Your task to perform on an android device: change the clock display to analog Image 0: 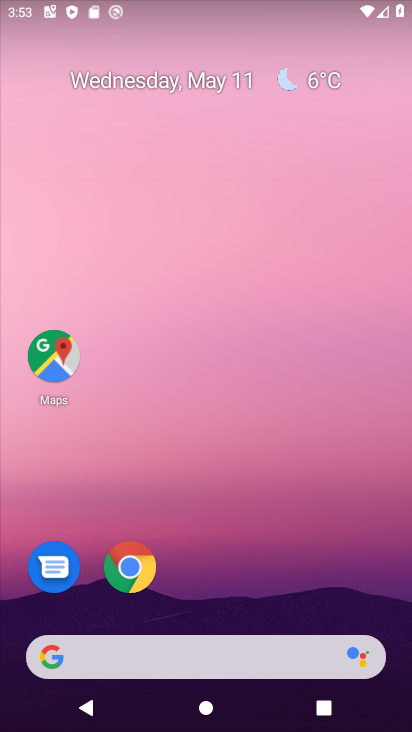
Step 0: drag from (304, 627) to (289, 320)
Your task to perform on an android device: change the clock display to analog Image 1: 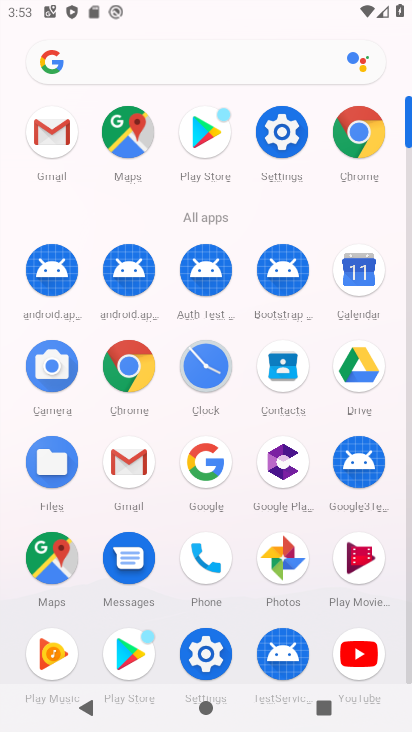
Step 1: click (214, 360)
Your task to perform on an android device: change the clock display to analog Image 2: 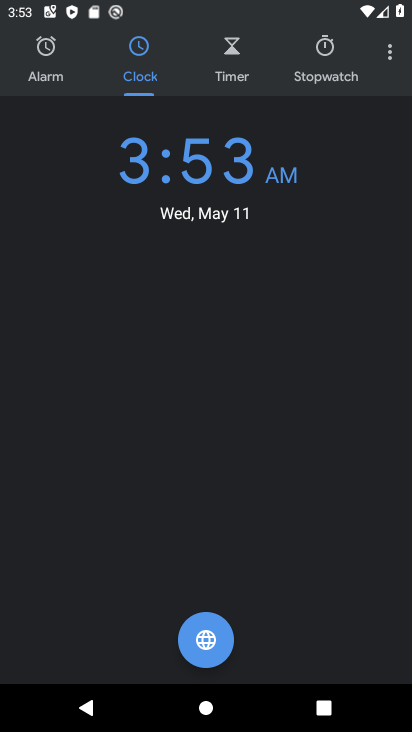
Step 2: click (384, 53)
Your task to perform on an android device: change the clock display to analog Image 3: 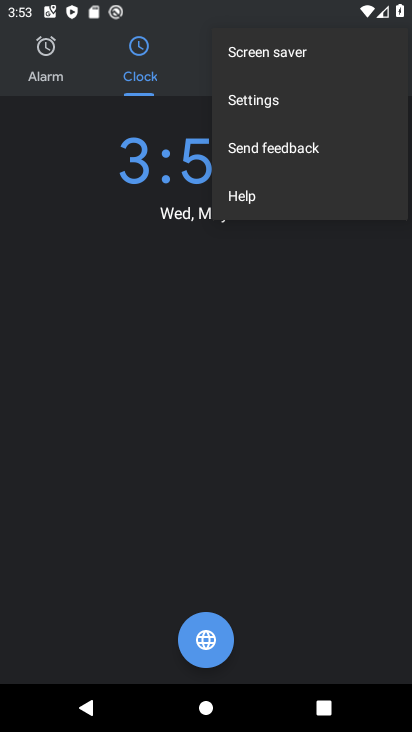
Step 3: click (270, 97)
Your task to perform on an android device: change the clock display to analog Image 4: 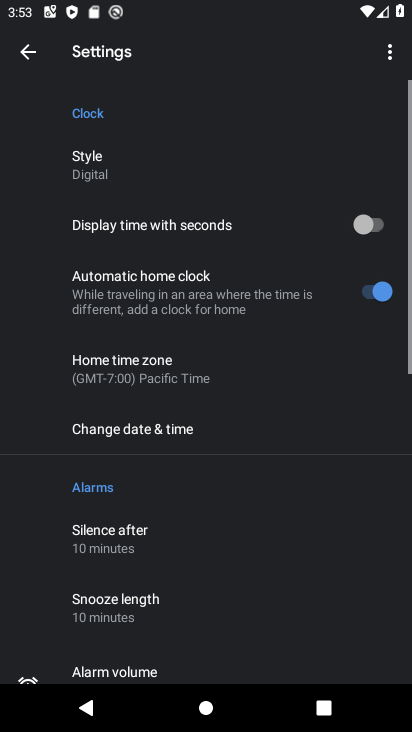
Step 4: click (98, 162)
Your task to perform on an android device: change the clock display to analog Image 5: 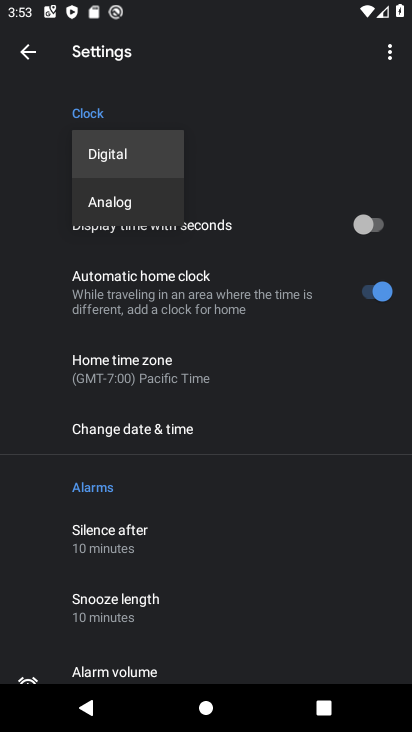
Step 5: click (122, 192)
Your task to perform on an android device: change the clock display to analog Image 6: 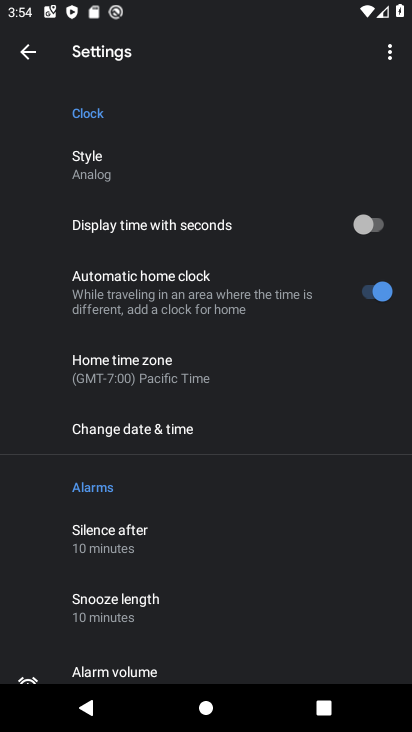
Step 6: task complete